Your task to perform on an android device: turn on the 24-hour format for clock Image 0: 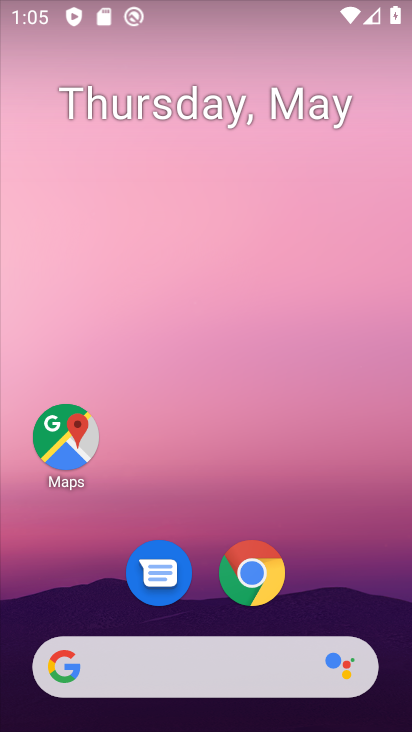
Step 0: drag from (367, 628) to (321, 263)
Your task to perform on an android device: turn on the 24-hour format for clock Image 1: 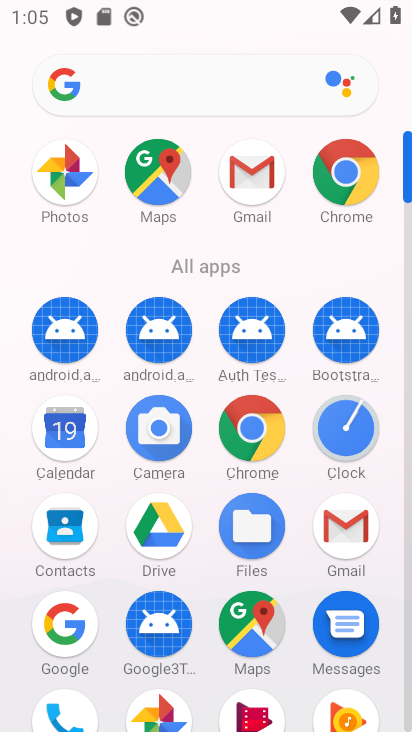
Step 1: click (324, 435)
Your task to perform on an android device: turn on the 24-hour format for clock Image 2: 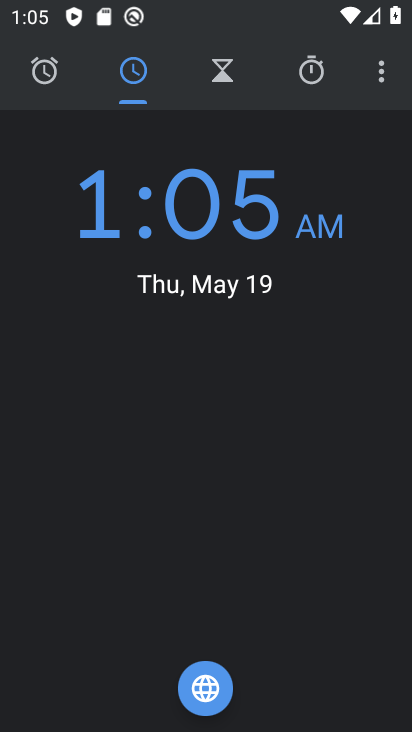
Step 2: click (382, 77)
Your task to perform on an android device: turn on the 24-hour format for clock Image 3: 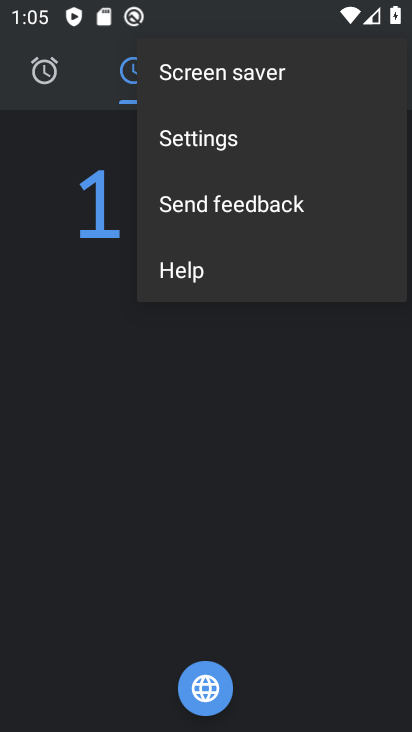
Step 3: click (273, 147)
Your task to perform on an android device: turn on the 24-hour format for clock Image 4: 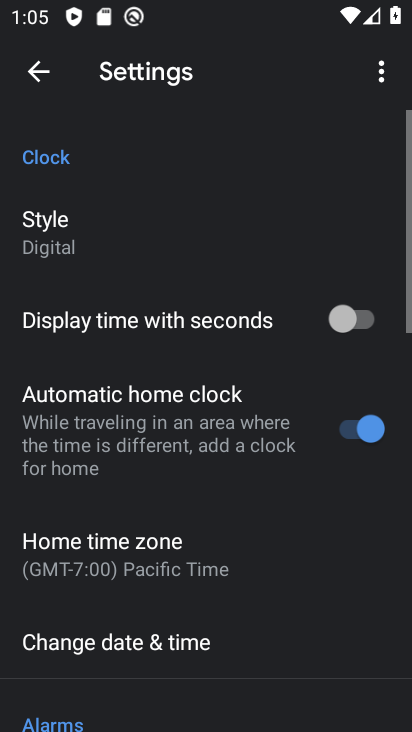
Step 4: drag from (120, 553) to (188, 332)
Your task to perform on an android device: turn on the 24-hour format for clock Image 5: 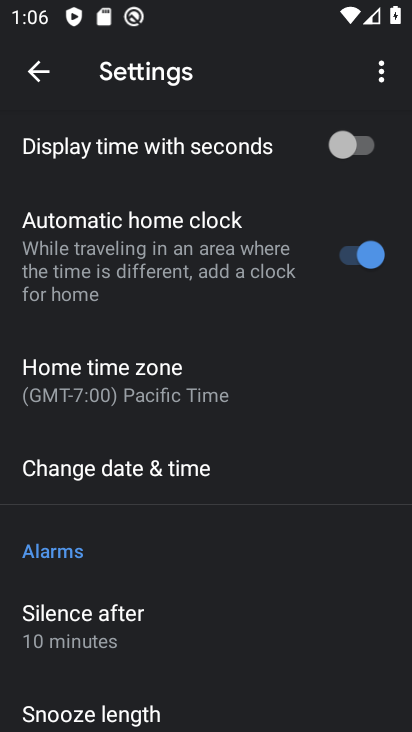
Step 5: drag from (152, 694) to (176, 517)
Your task to perform on an android device: turn on the 24-hour format for clock Image 6: 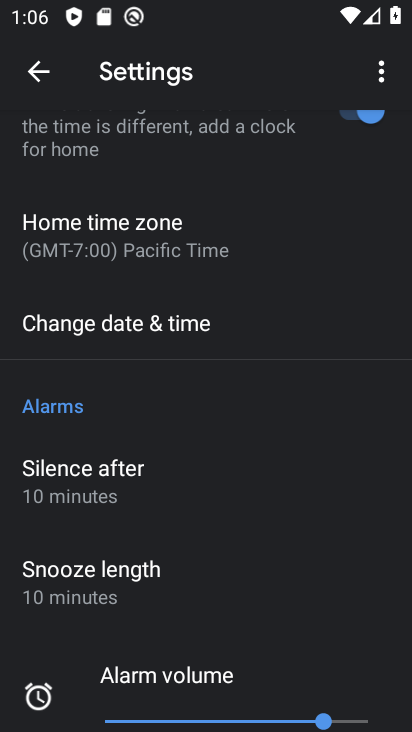
Step 6: click (172, 369)
Your task to perform on an android device: turn on the 24-hour format for clock Image 7: 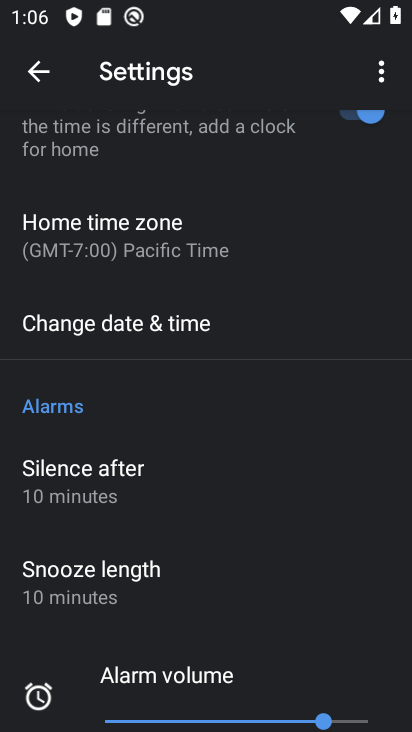
Step 7: click (148, 338)
Your task to perform on an android device: turn on the 24-hour format for clock Image 8: 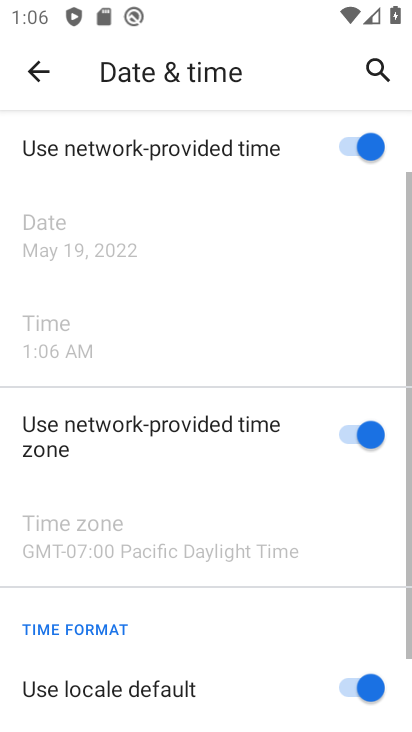
Step 8: drag from (163, 605) to (206, 191)
Your task to perform on an android device: turn on the 24-hour format for clock Image 9: 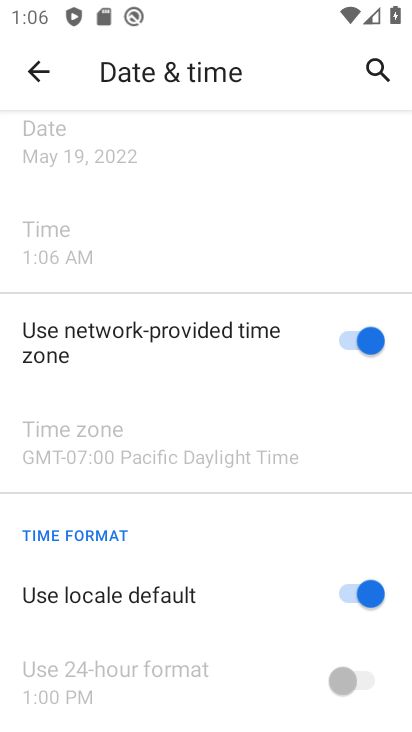
Step 9: click (329, 603)
Your task to perform on an android device: turn on the 24-hour format for clock Image 10: 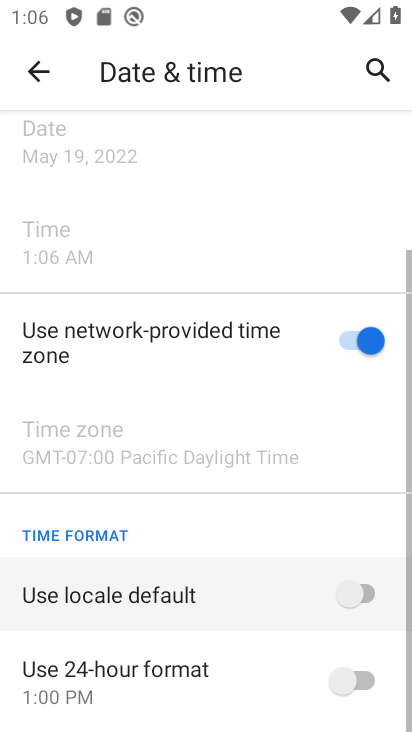
Step 10: click (329, 673)
Your task to perform on an android device: turn on the 24-hour format for clock Image 11: 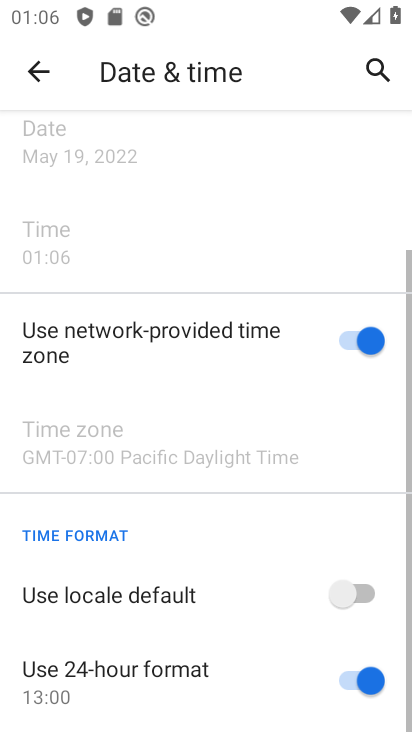
Step 11: task complete